Your task to perform on an android device: Open Amazon Image 0: 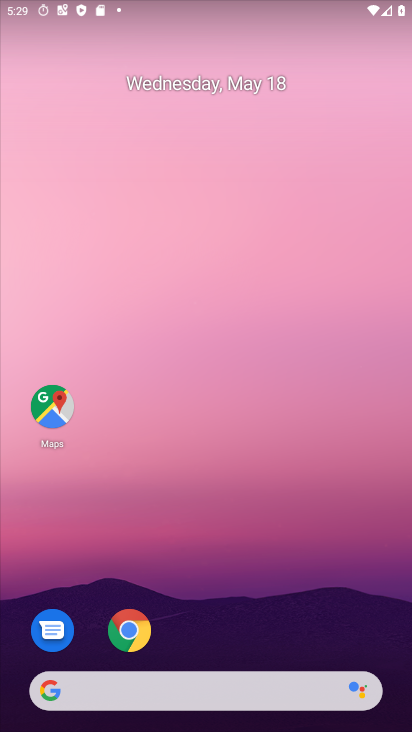
Step 0: click (135, 637)
Your task to perform on an android device: Open Amazon Image 1: 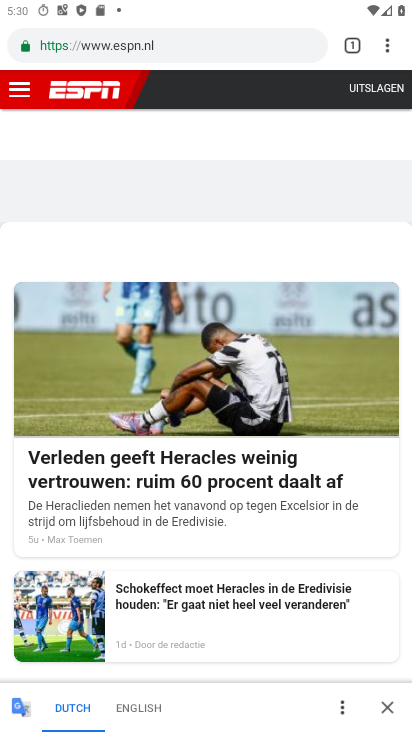
Step 1: click (358, 43)
Your task to perform on an android device: Open Amazon Image 2: 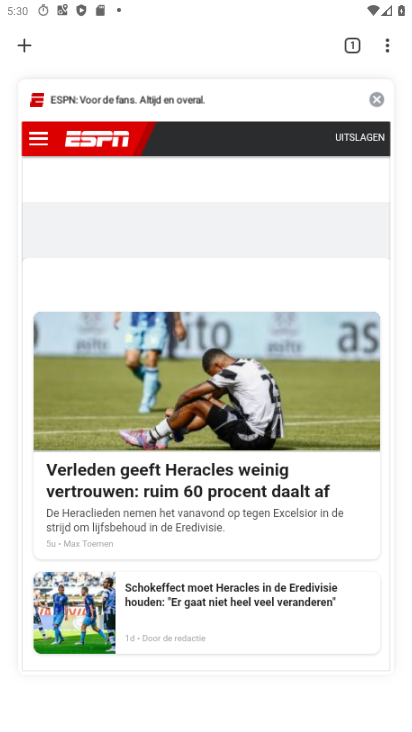
Step 2: click (379, 97)
Your task to perform on an android device: Open Amazon Image 3: 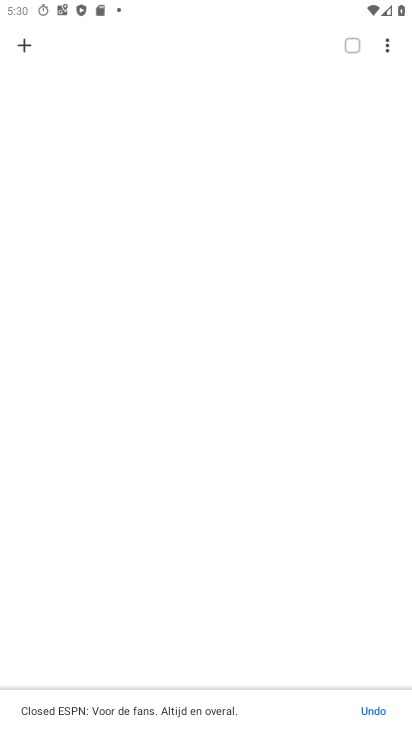
Step 3: click (22, 47)
Your task to perform on an android device: Open Amazon Image 4: 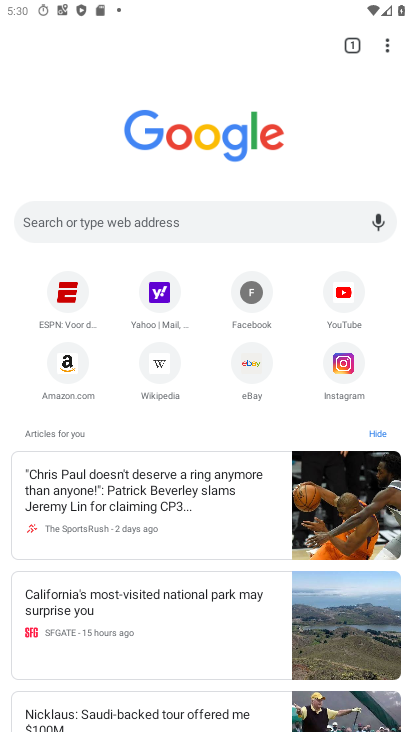
Step 4: click (83, 370)
Your task to perform on an android device: Open Amazon Image 5: 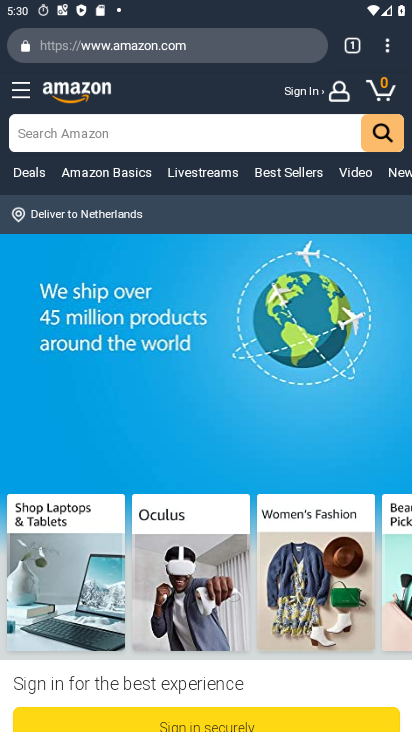
Step 5: task complete